Your task to perform on an android device: Search for the best books on Goodreads. Image 0: 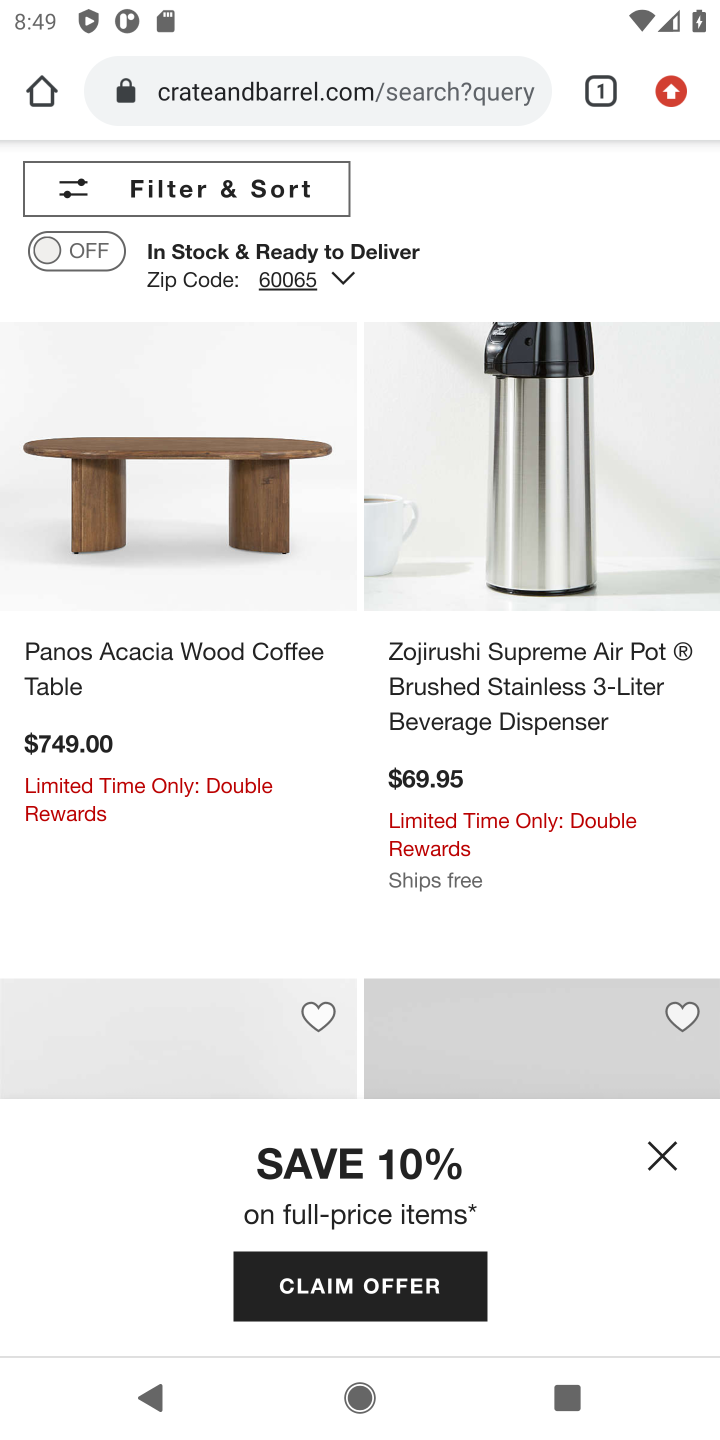
Step 0: press home button
Your task to perform on an android device: Search for the best books on Goodreads. Image 1: 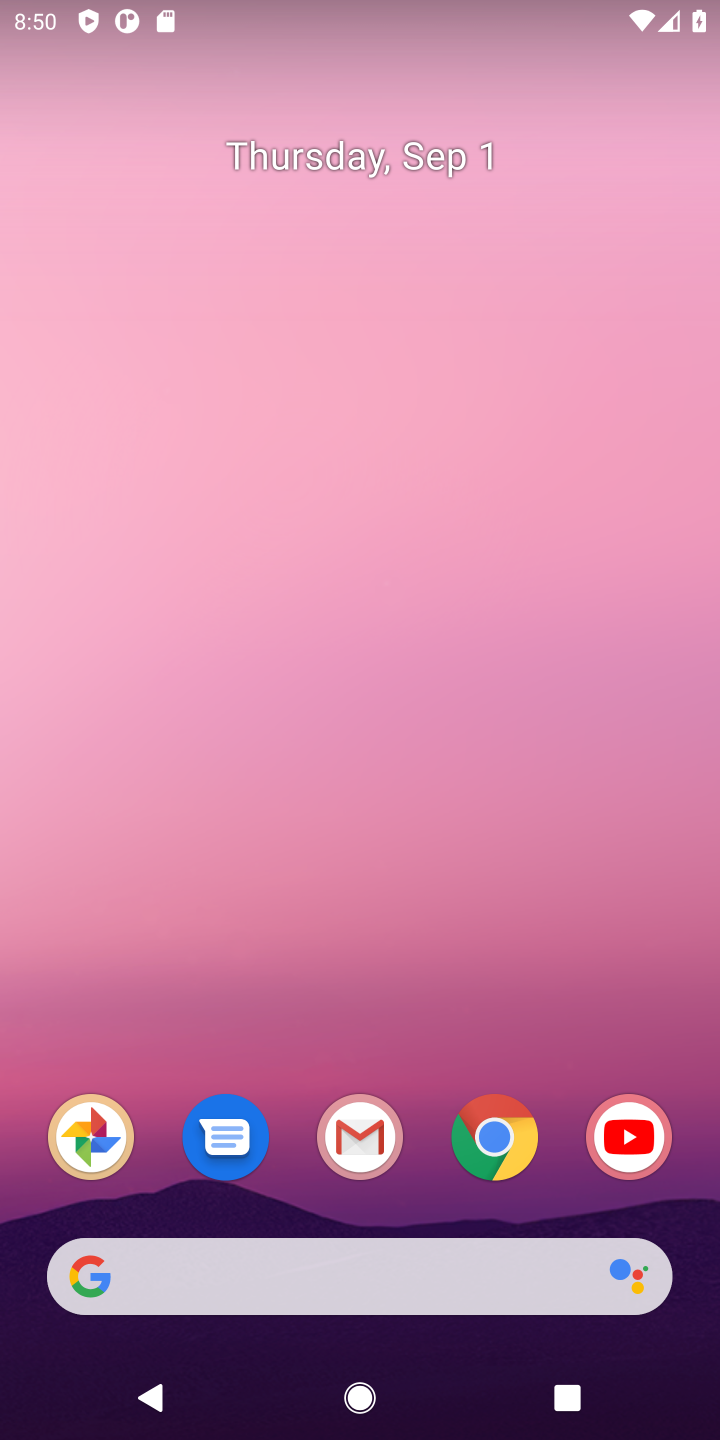
Step 1: drag from (405, 1058) to (355, 0)
Your task to perform on an android device: Search for the best books on Goodreads. Image 2: 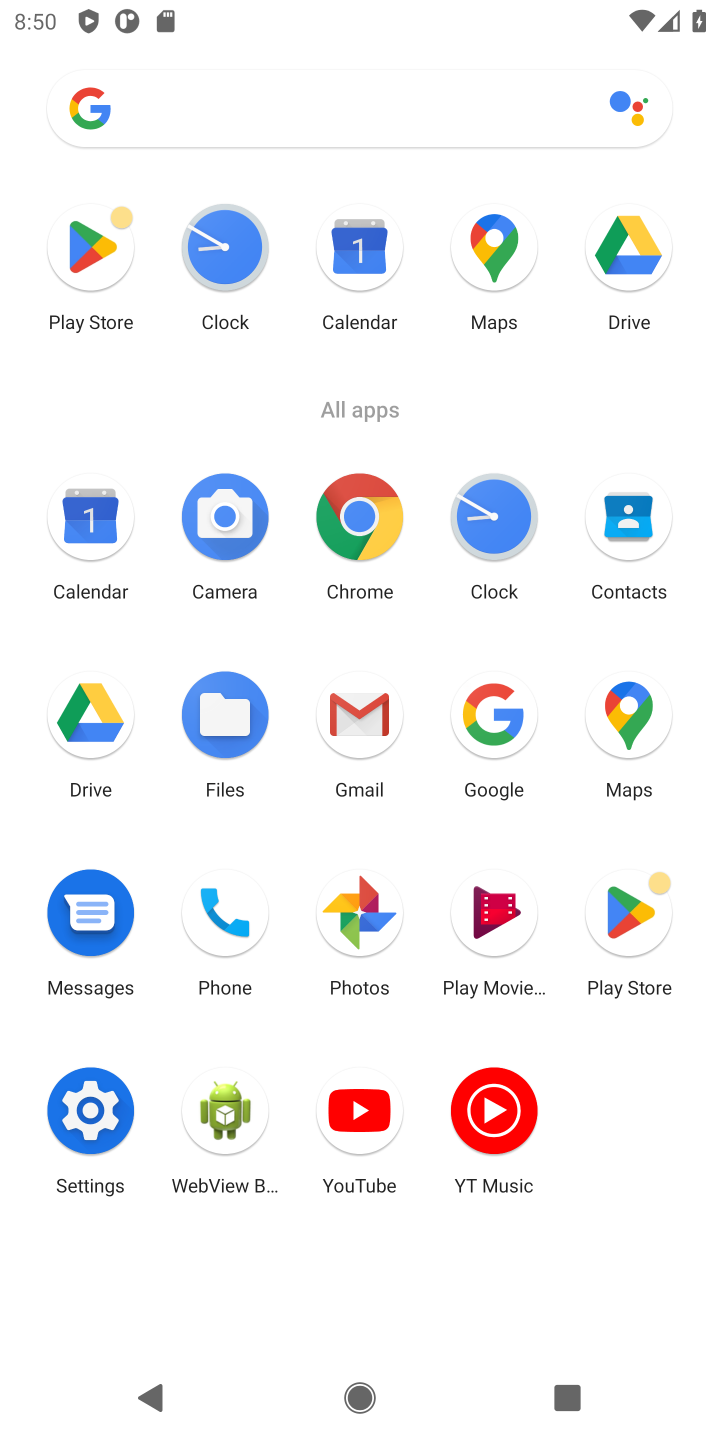
Step 2: click (357, 502)
Your task to perform on an android device: Search for the best books on Goodreads. Image 3: 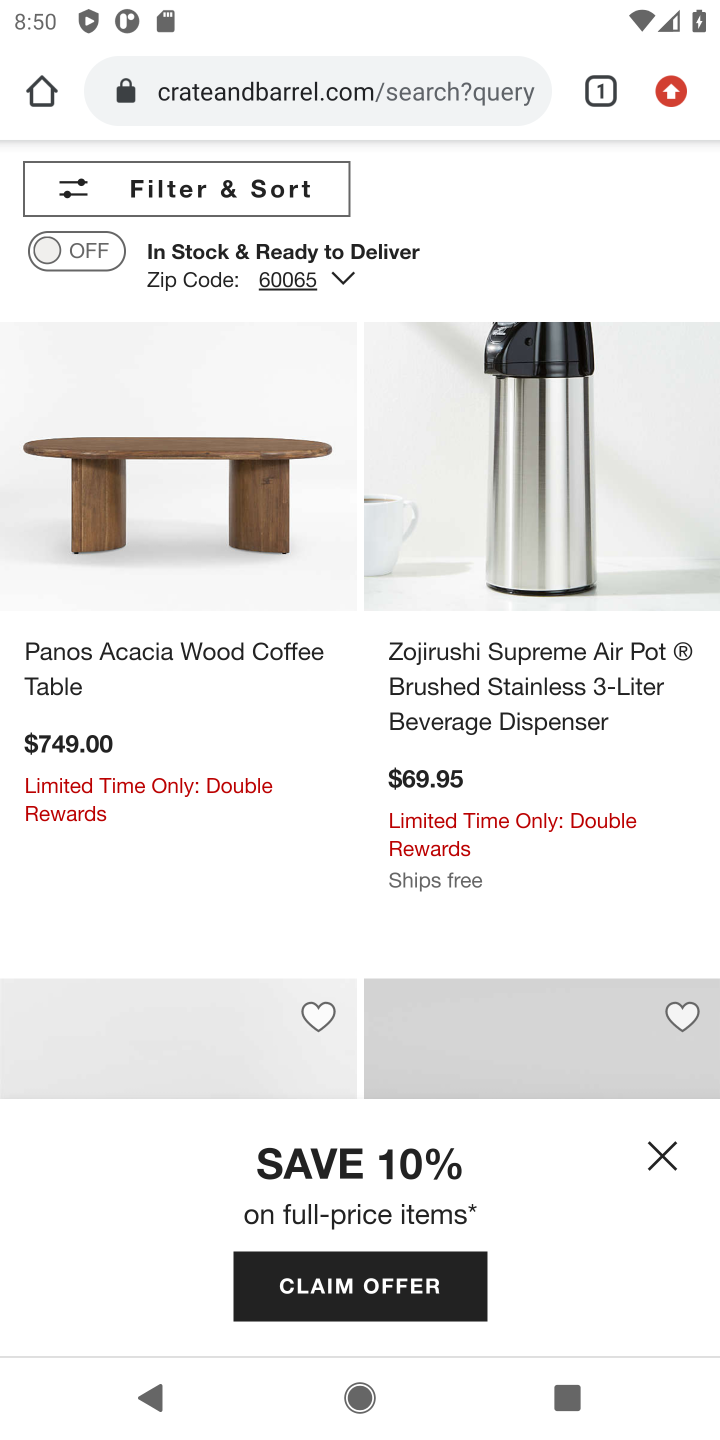
Step 3: click (590, 76)
Your task to perform on an android device: Search for the best books on Goodreads. Image 4: 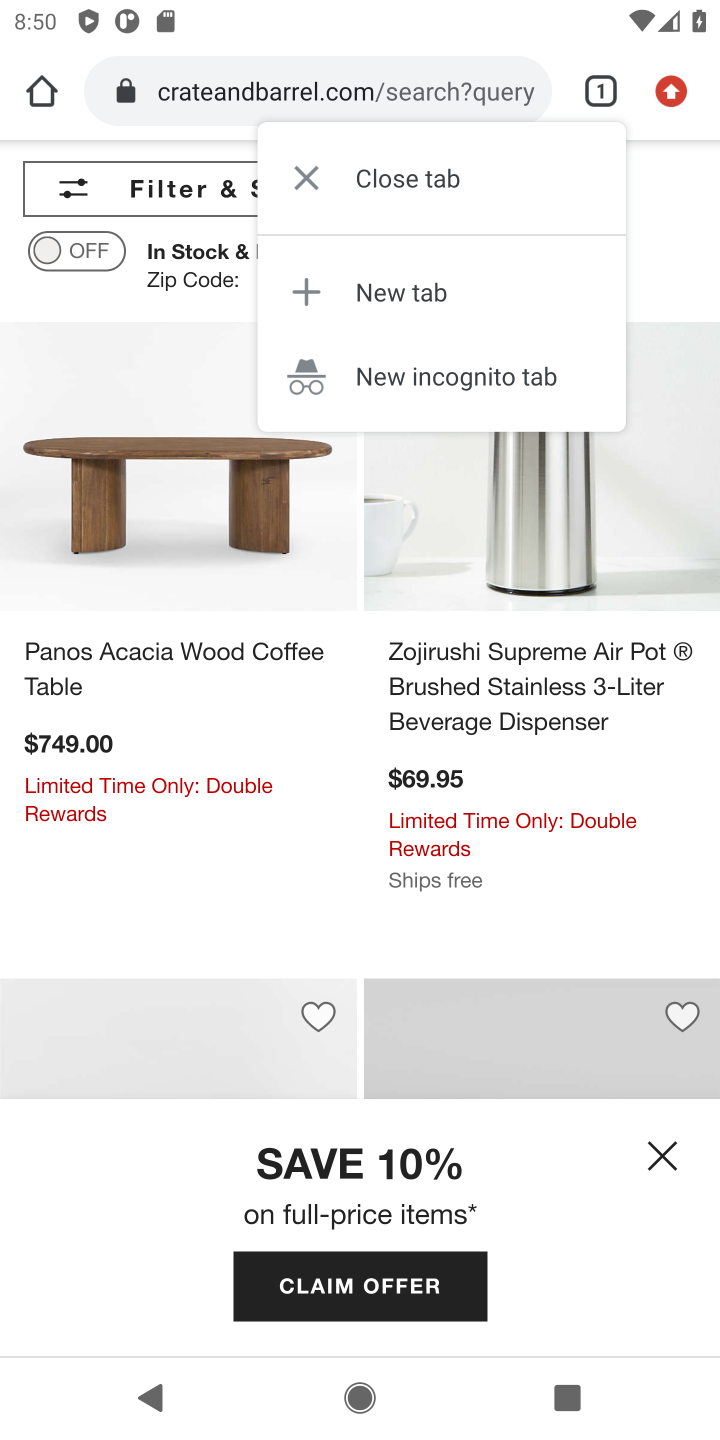
Step 4: click (426, 289)
Your task to perform on an android device: Search for the best books on Goodreads. Image 5: 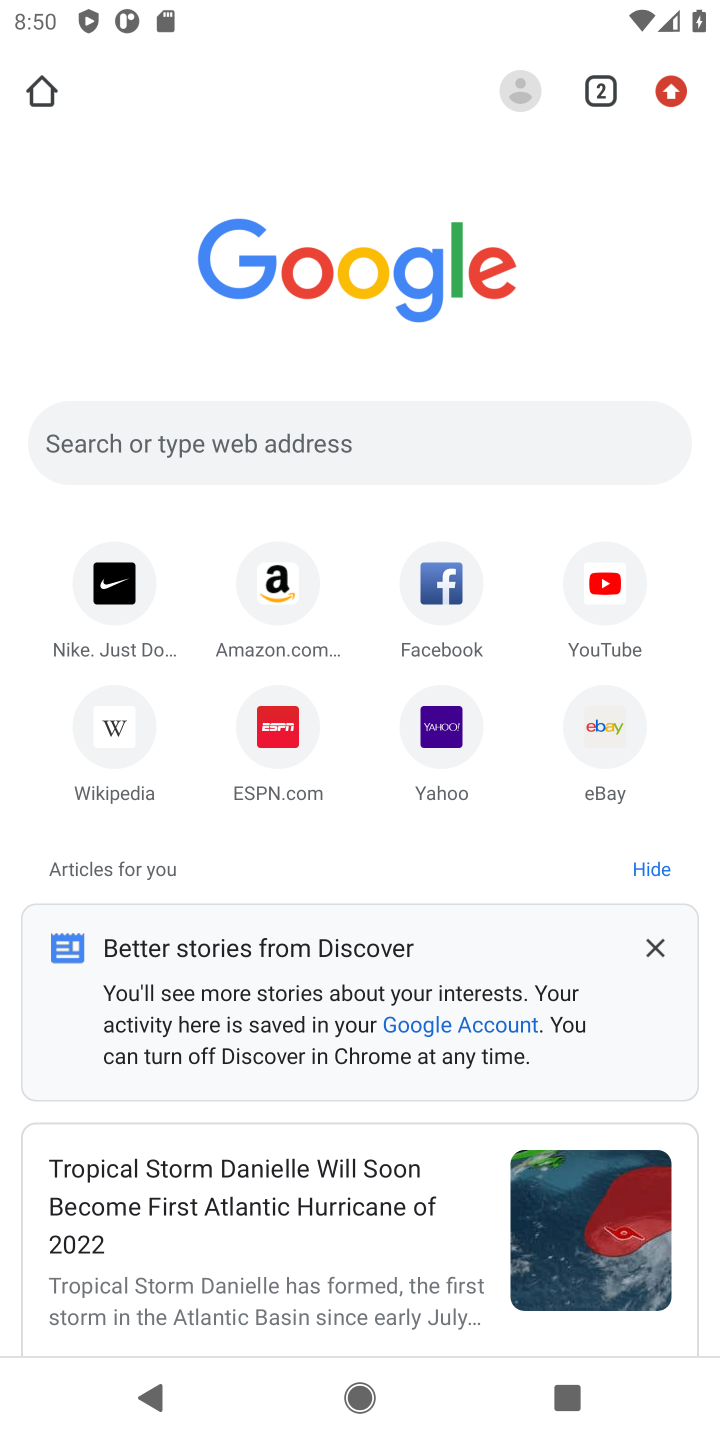
Step 5: click (244, 414)
Your task to perform on an android device: Search for the best books on Goodreads. Image 6: 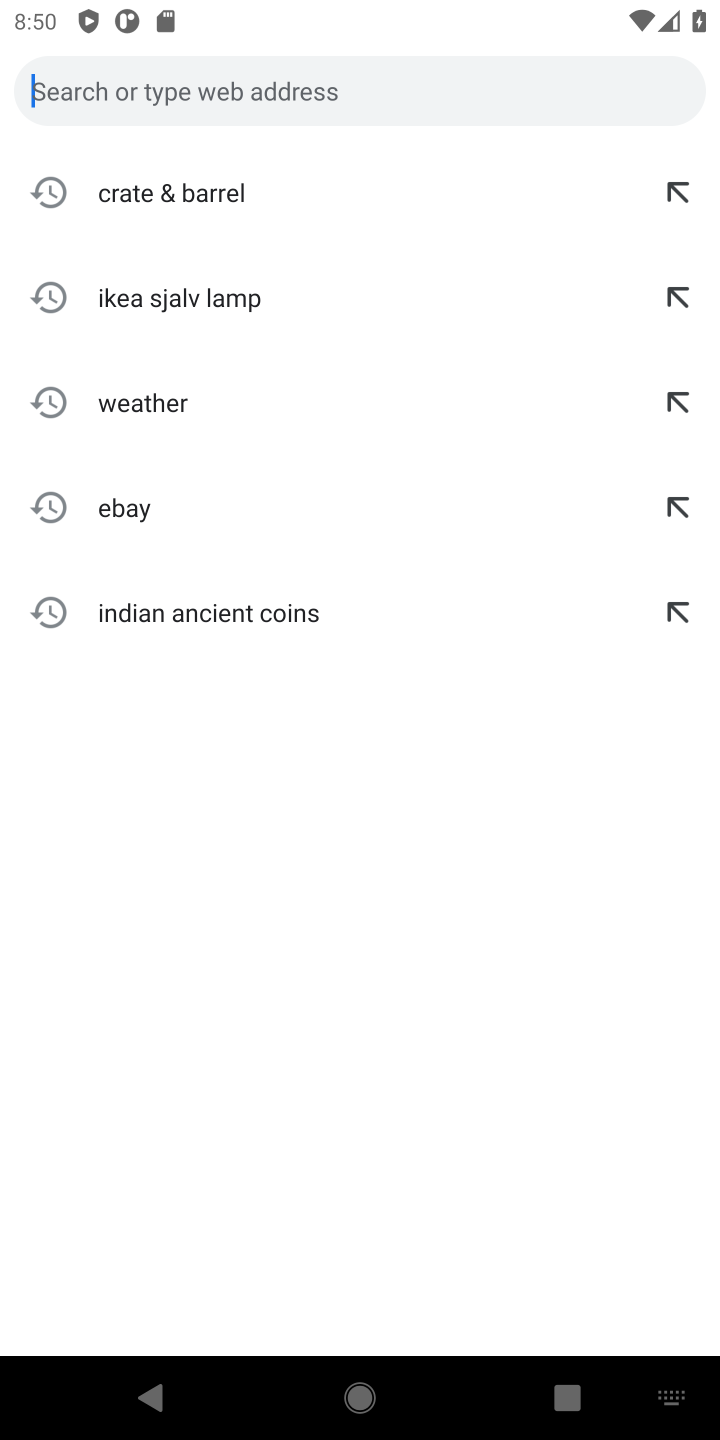
Step 6: type "Goodreads"
Your task to perform on an android device: Search for the best books on Goodreads. Image 7: 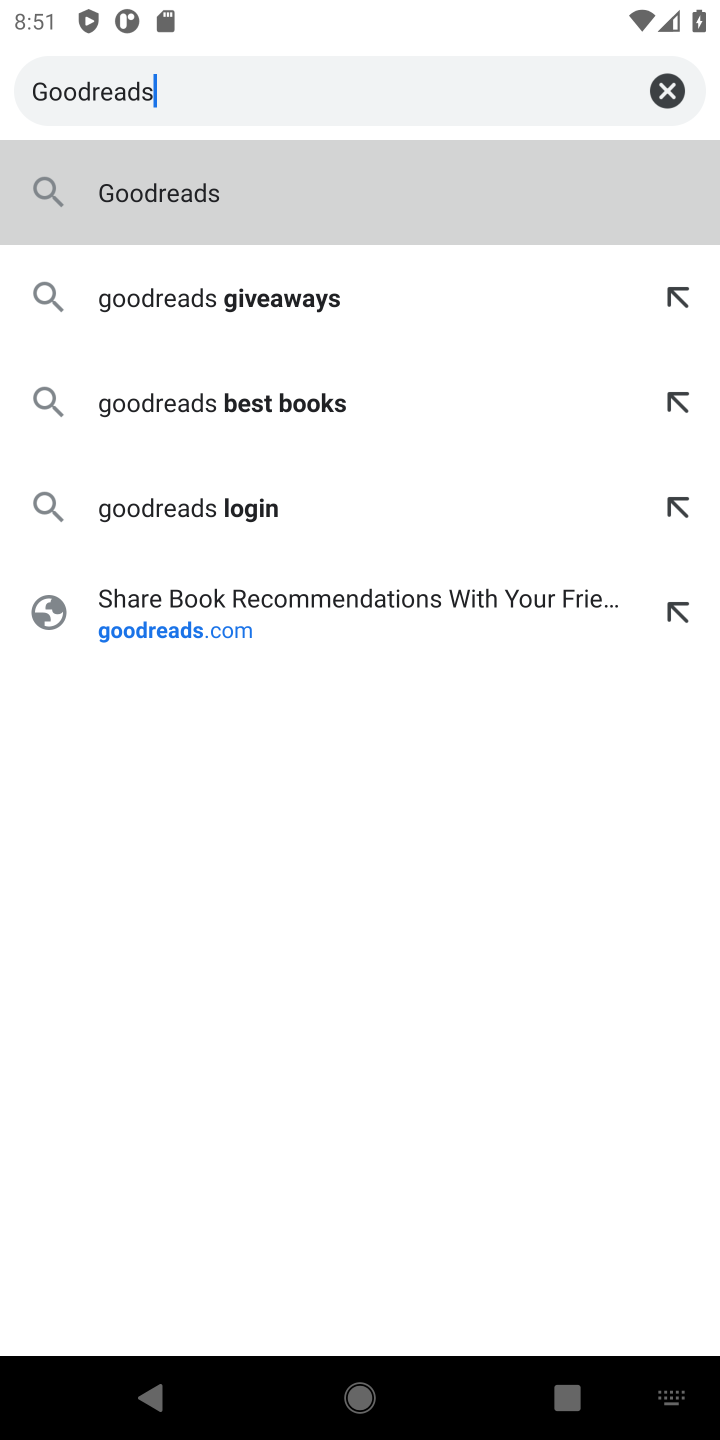
Step 7: click (190, 196)
Your task to perform on an android device: Search for the best books on Goodreads. Image 8: 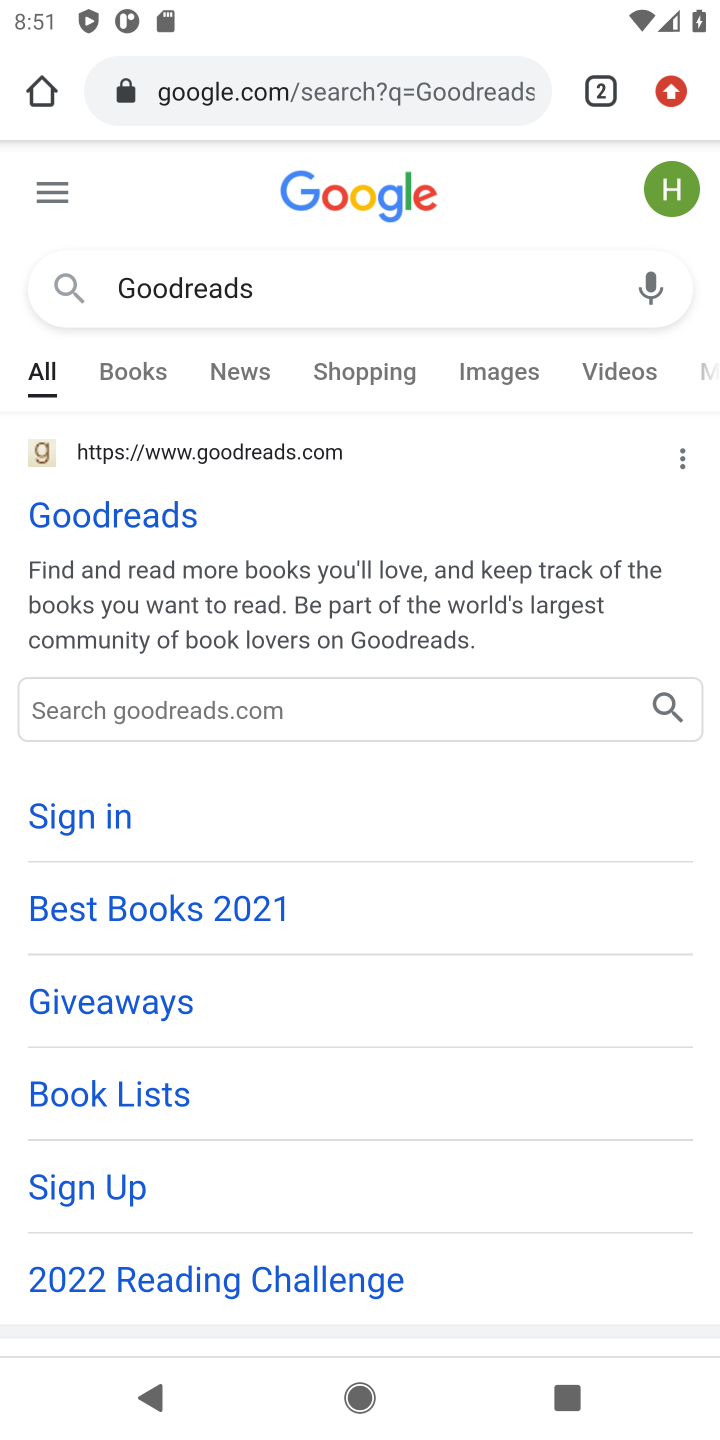
Step 8: click (103, 511)
Your task to perform on an android device: Search for the best books on Goodreads. Image 9: 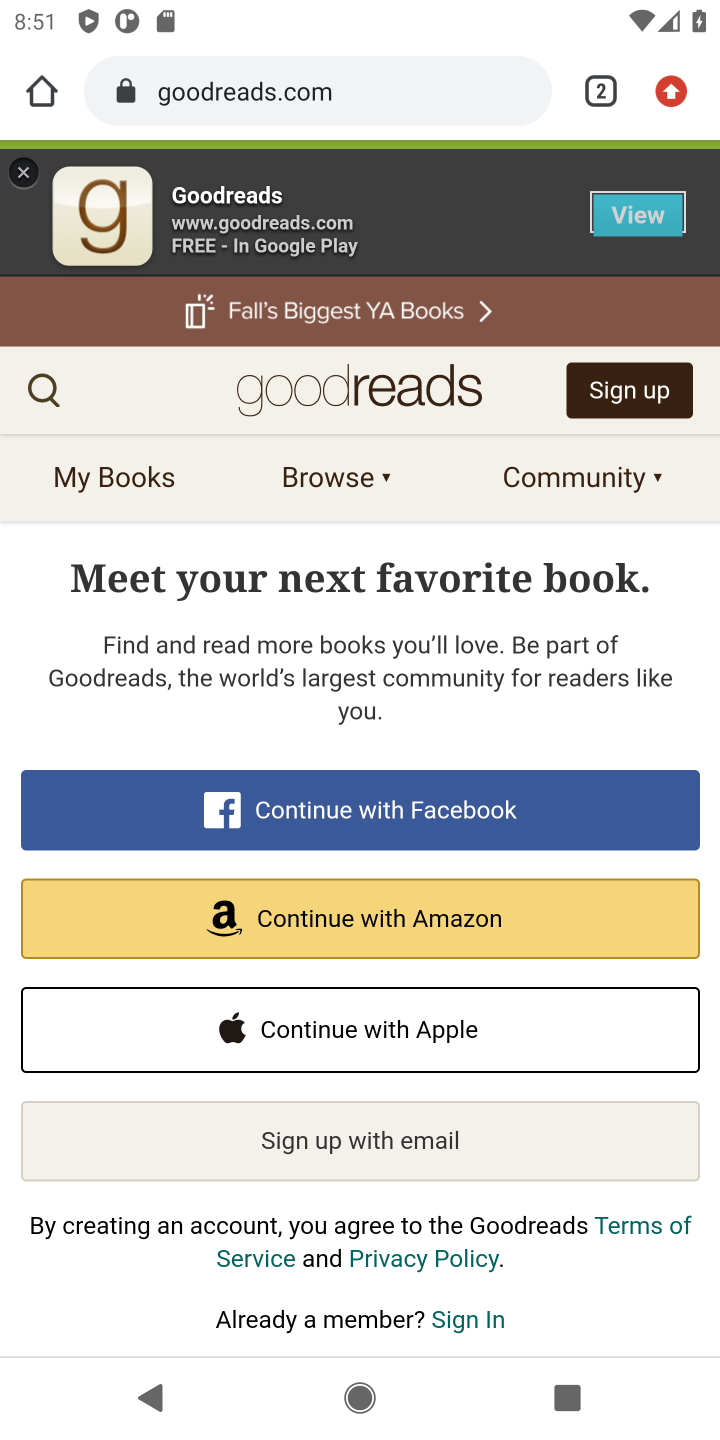
Step 9: click (50, 389)
Your task to perform on an android device: Search for the best books on Goodreads. Image 10: 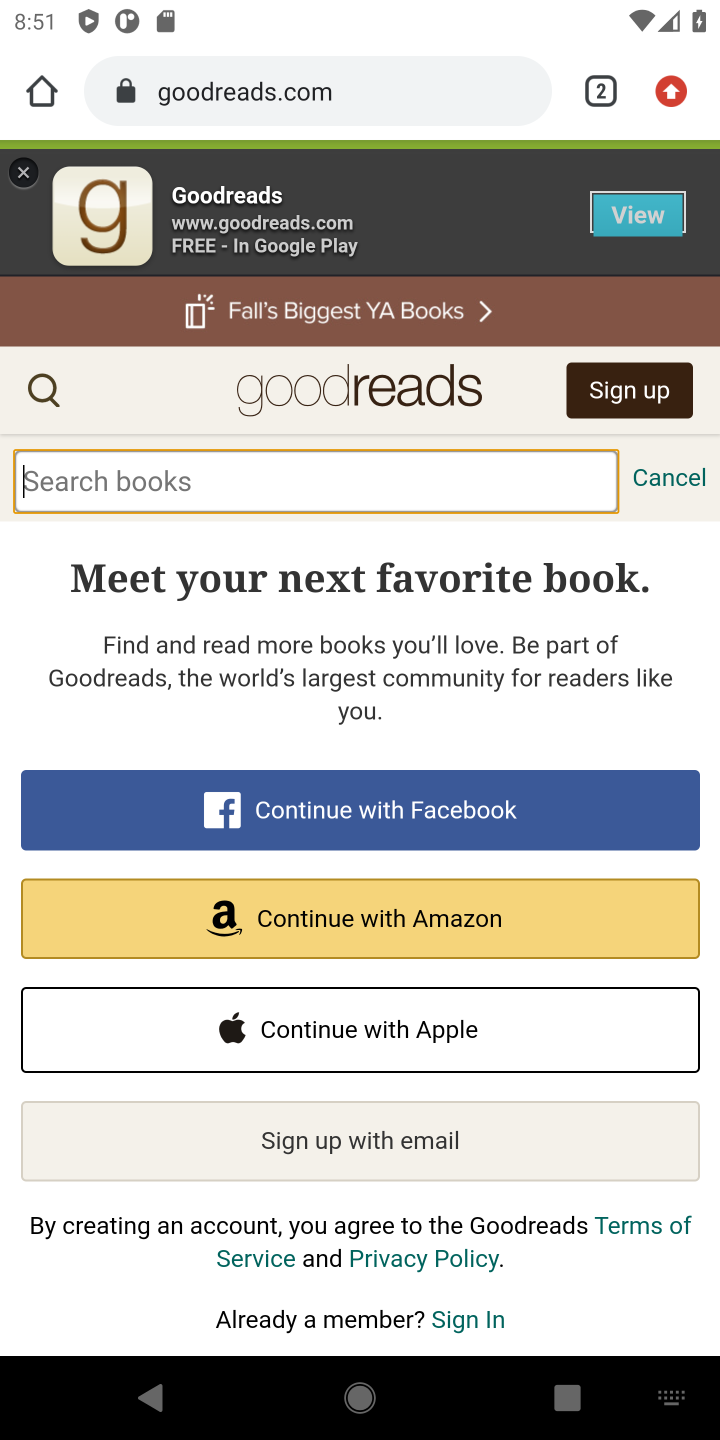
Step 10: click (285, 490)
Your task to perform on an android device: Search for the best books on Goodreads. Image 11: 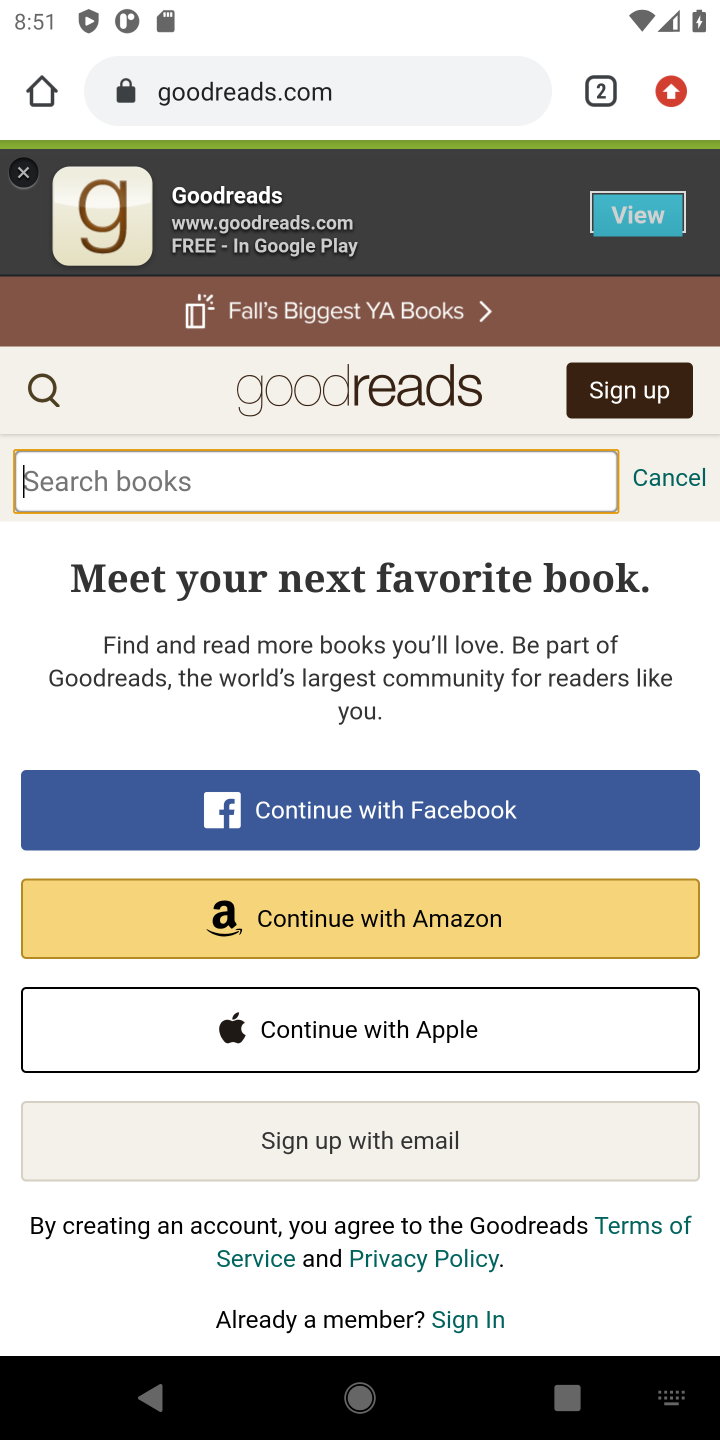
Step 11: type "best books"
Your task to perform on an android device: Search for the best books on Goodreads. Image 12: 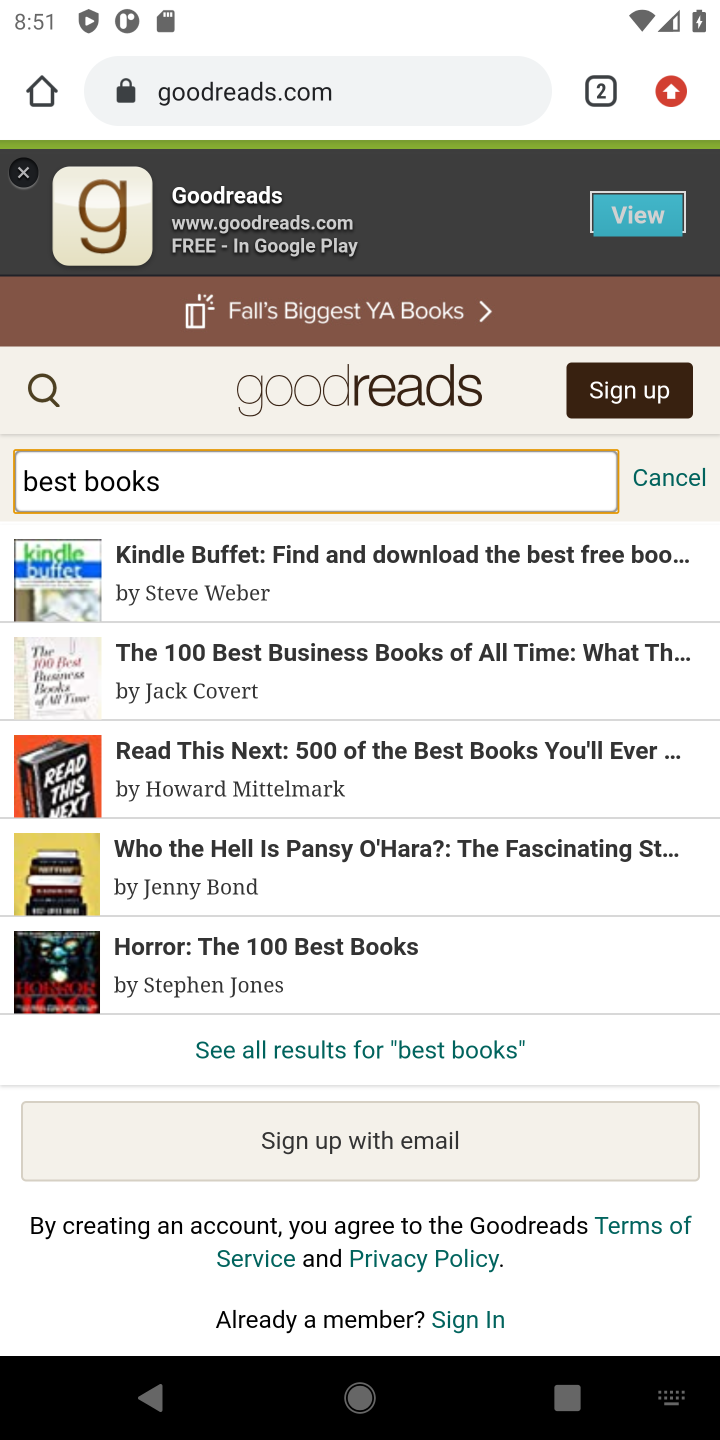
Step 12: click (36, 406)
Your task to perform on an android device: Search for the best books on Goodreads. Image 13: 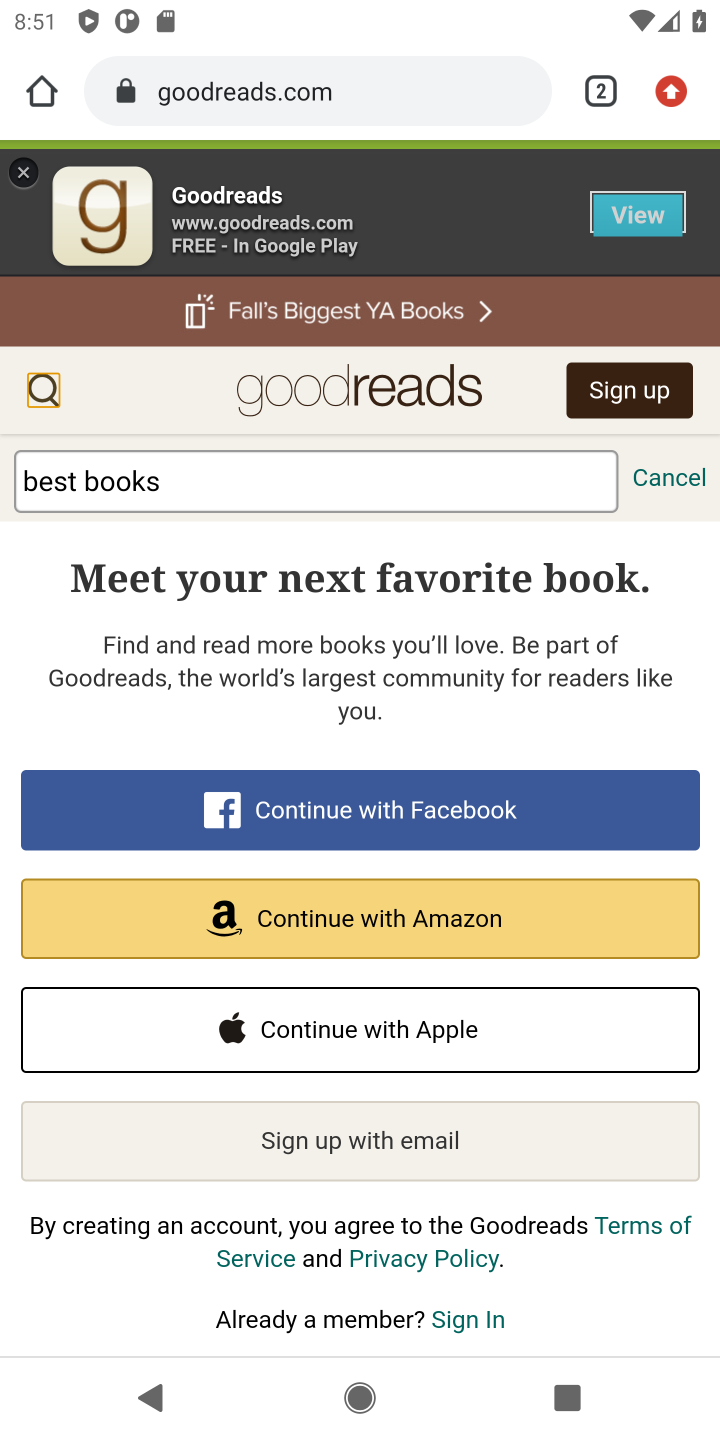
Step 13: click (195, 481)
Your task to perform on an android device: Search for the best books on Goodreads. Image 14: 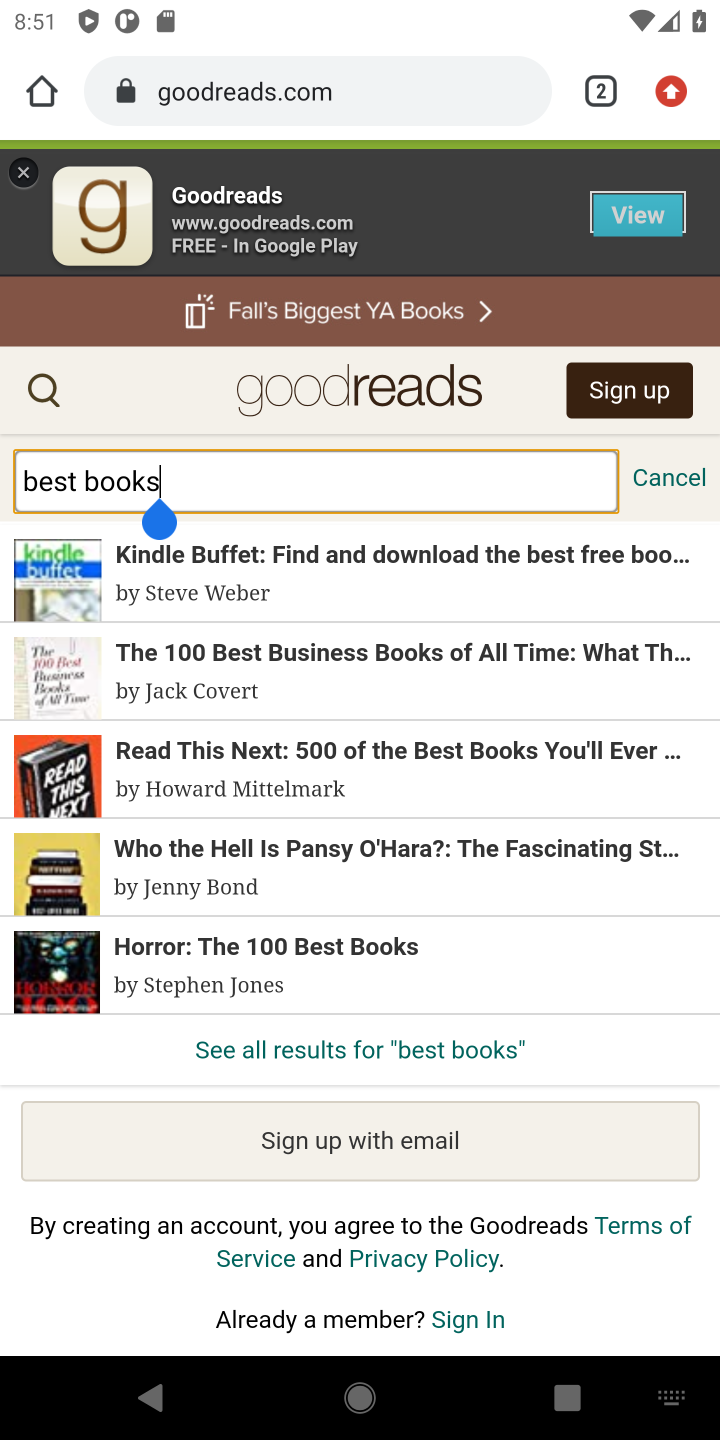
Step 14: click (352, 1050)
Your task to perform on an android device: Search for the best books on Goodreads. Image 15: 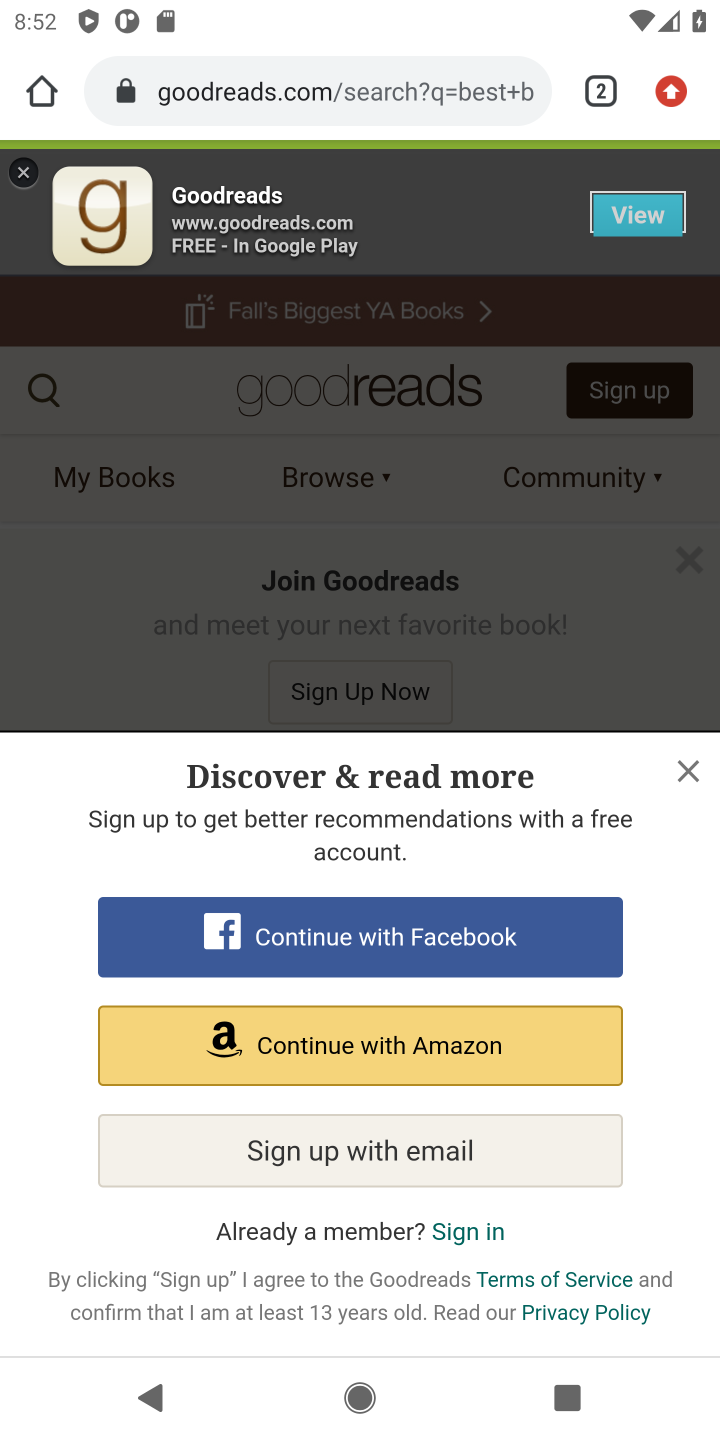
Step 15: click (687, 761)
Your task to perform on an android device: Search for the best books on Goodreads. Image 16: 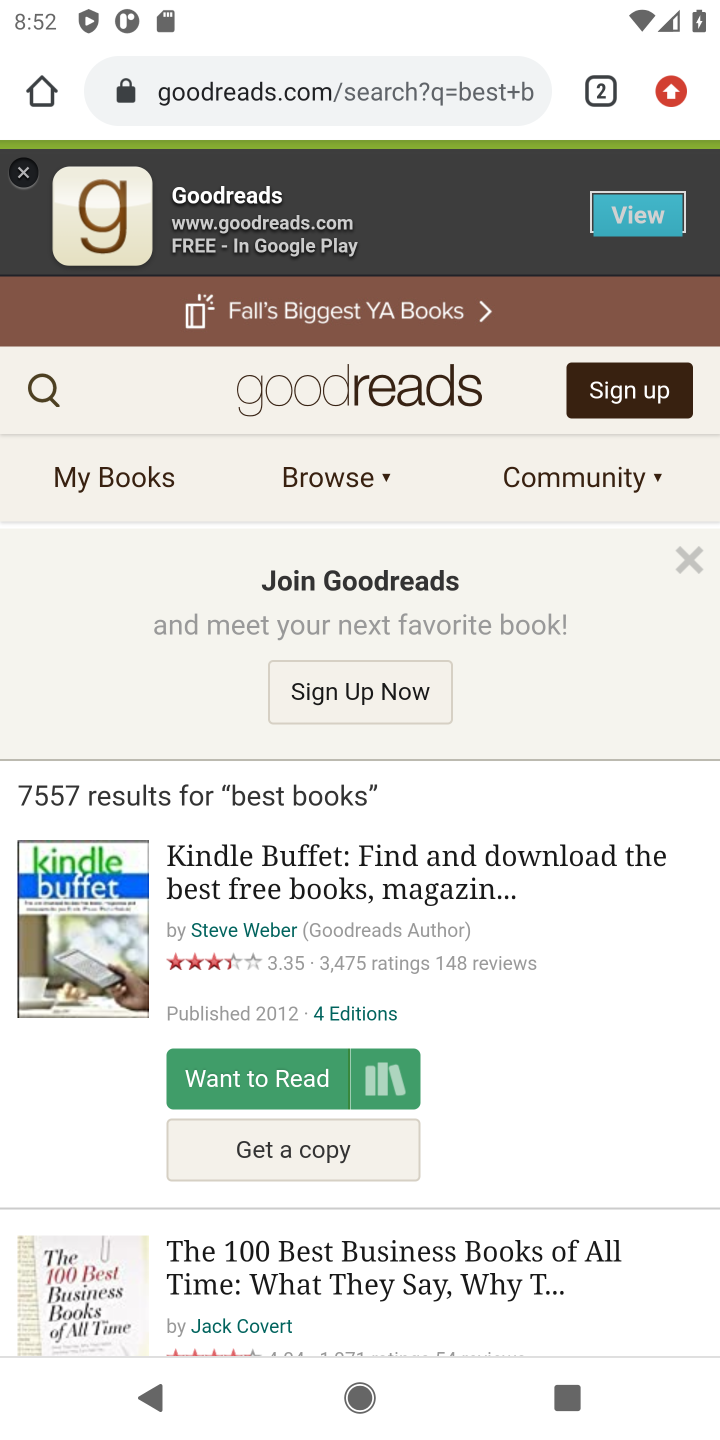
Step 16: task complete